Your task to perform on an android device: turn off data saver in the chrome app Image 0: 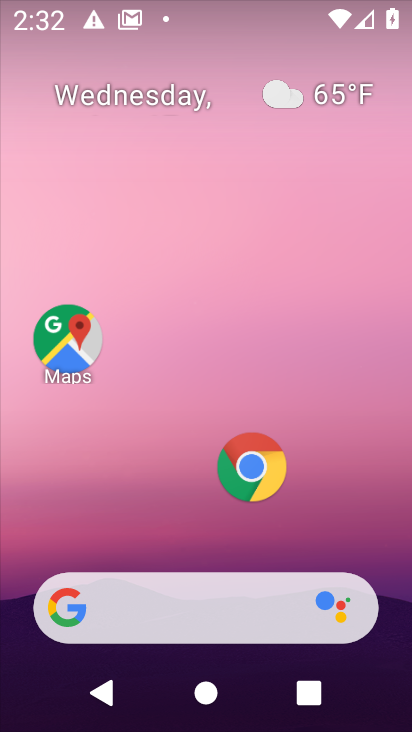
Step 0: click (246, 461)
Your task to perform on an android device: turn off data saver in the chrome app Image 1: 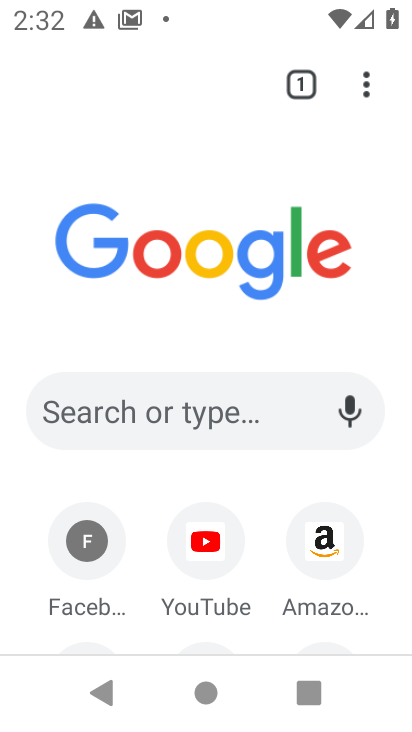
Step 1: task complete